Your task to perform on an android device: delete the emails in spam in the gmail app Image 0: 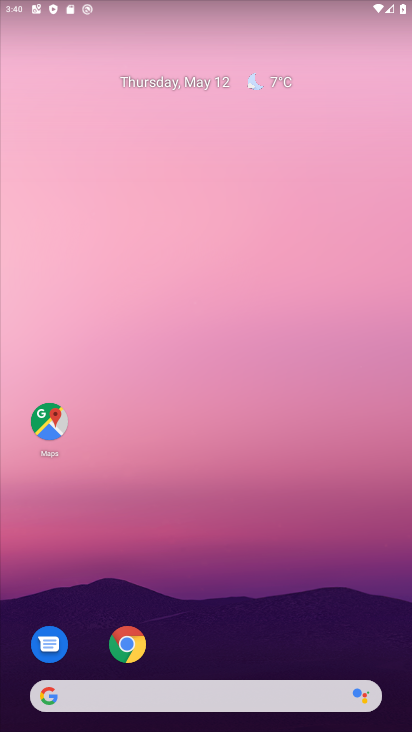
Step 0: drag from (232, 652) to (253, 61)
Your task to perform on an android device: delete the emails in spam in the gmail app Image 1: 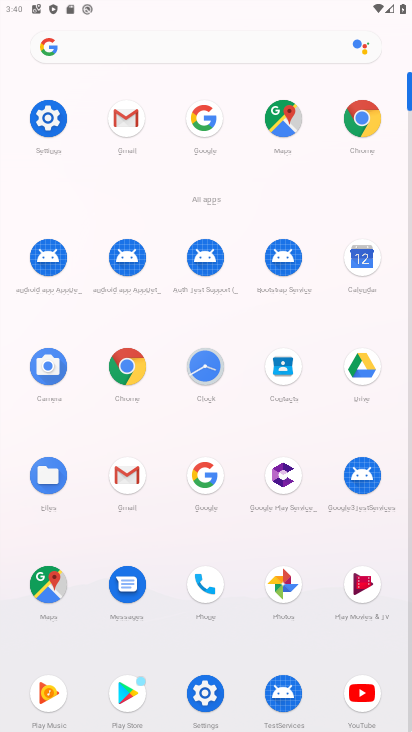
Step 1: click (124, 468)
Your task to perform on an android device: delete the emails in spam in the gmail app Image 2: 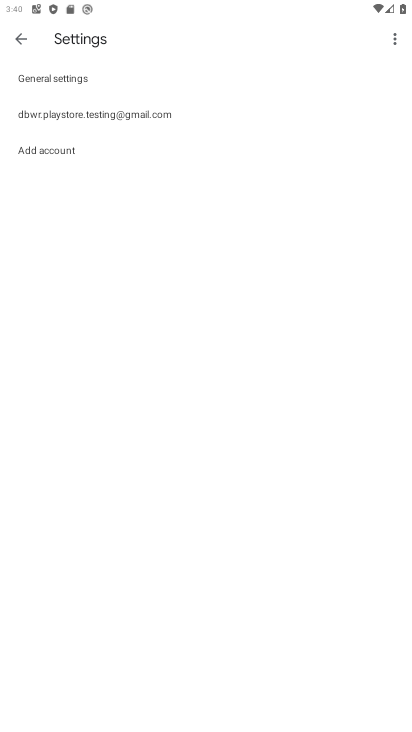
Step 2: click (17, 41)
Your task to perform on an android device: delete the emails in spam in the gmail app Image 3: 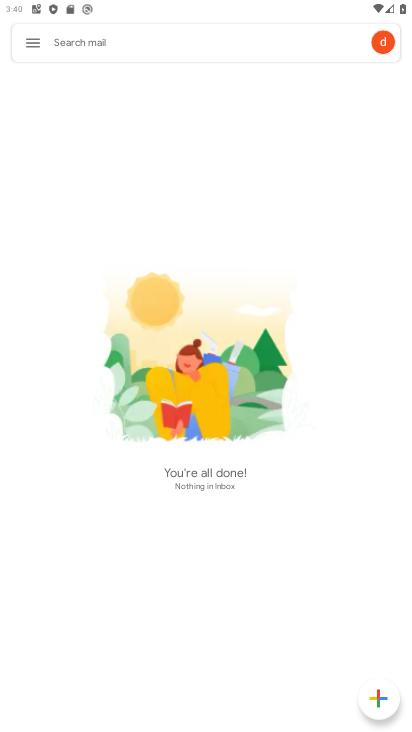
Step 3: click (35, 35)
Your task to perform on an android device: delete the emails in spam in the gmail app Image 4: 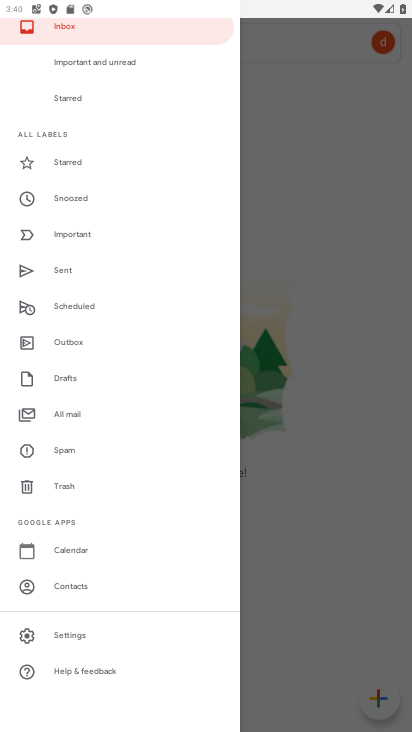
Step 4: click (59, 441)
Your task to perform on an android device: delete the emails in spam in the gmail app Image 5: 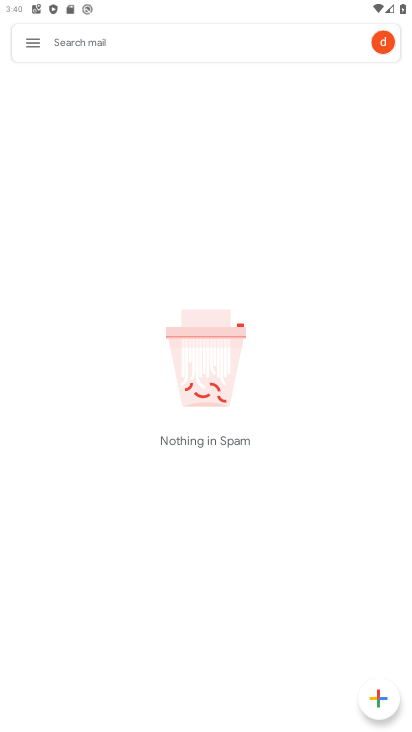
Step 5: task complete